Your task to perform on an android device: see tabs open on other devices in the chrome app Image 0: 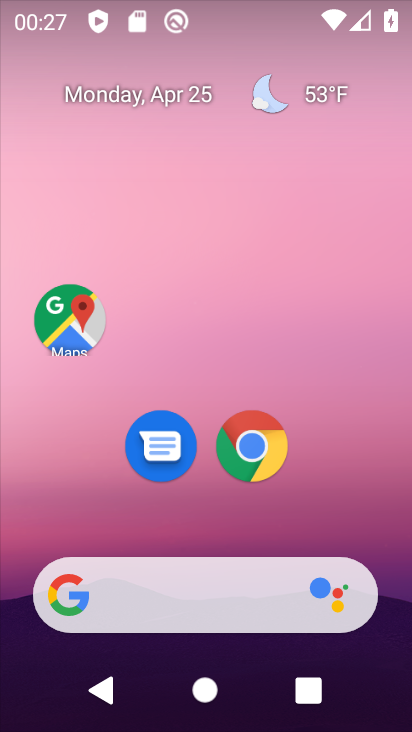
Step 0: drag from (203, 536) to (218, 3)
Your task to perform on an android device: see tabs open on other devices in the chrome app Image 1: 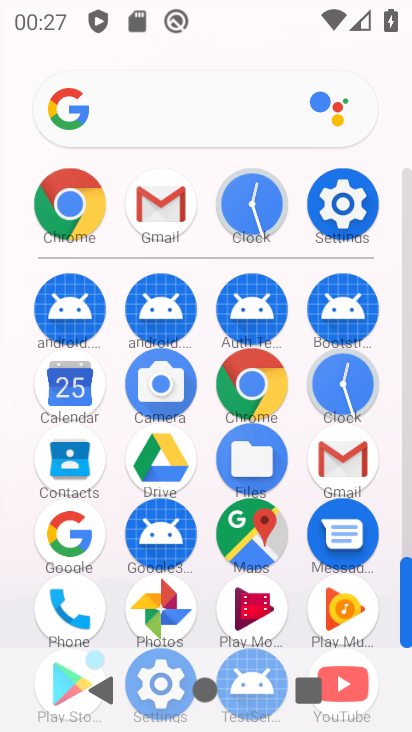
Step 1: click (250, 372)
Your task to perform on an android device: see tabs open on other devices in the chrome app Image 2: 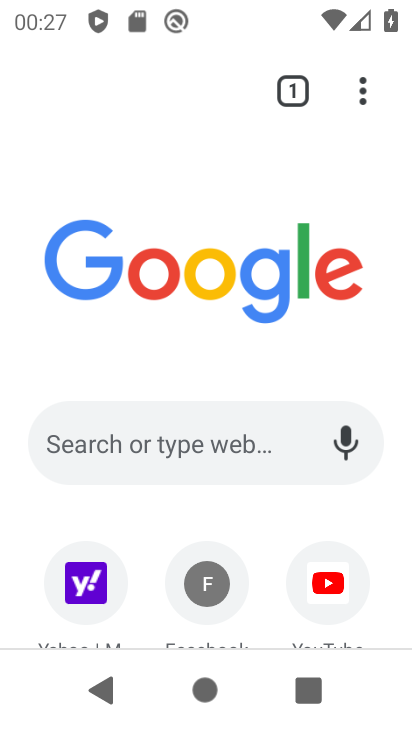
Step 2: click (361, 87)
Your task to perform on an android device: see tabs open on other devices in the chrome app Image 3: 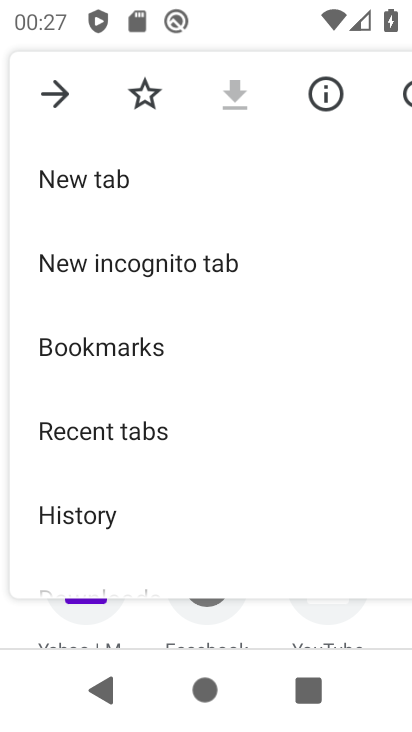
Step 3: click (129, 438)
Your task to perform on an android device: see tabs open on other devices in the chrome app Image 4: 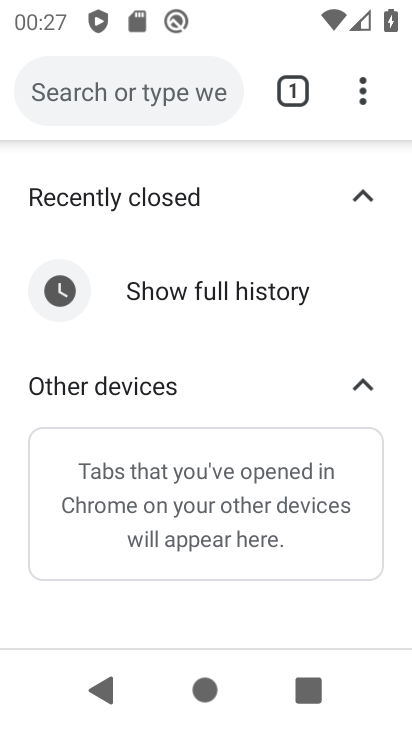
Step 4: task complete